Your task to perform on an android device: What's on my calendar tomorrow? Image 0: 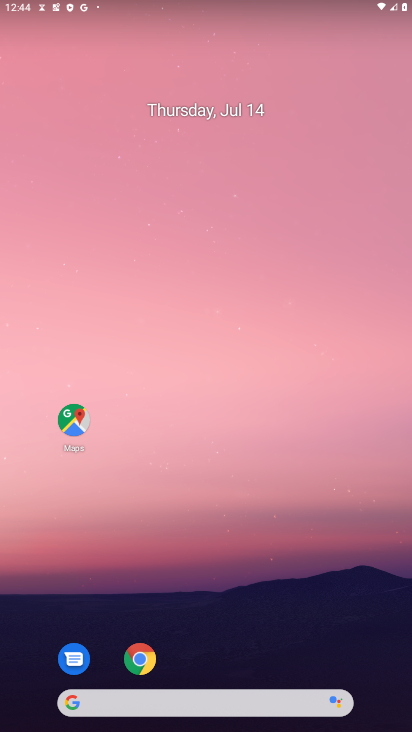
Step 0: drag from (108, 569) to (183, 148)
Your task to perform on an android device: What's on my calendar tomorrow? Image 1: 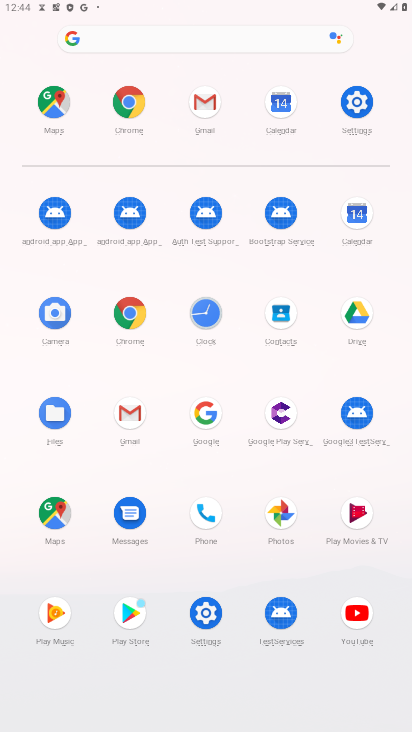
Step 1: click (361, 232)
Your task to perform on an android device: What's on my calendar tomorrow? Image 2: 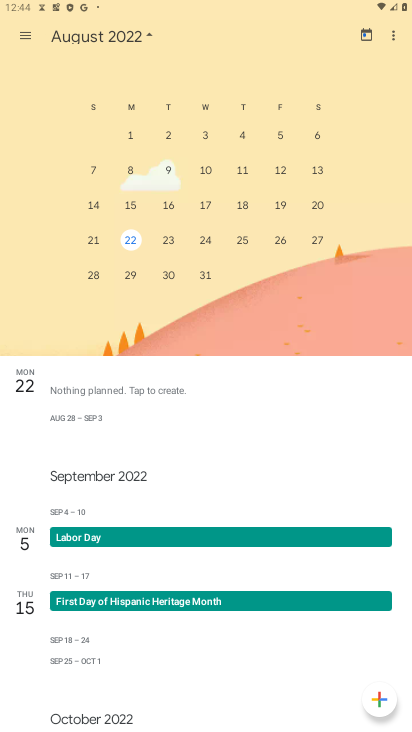
Step 2: task complete